Your task to perform on an android device: Search for vegetarian restaurants on Maps Image 0: 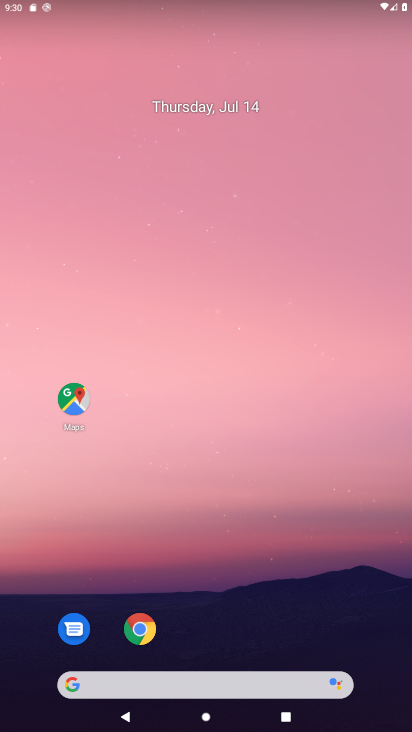
Step 0: press home button
Your task to perform on an android device: Search for vegetarian restaurants on Maps Image 1: 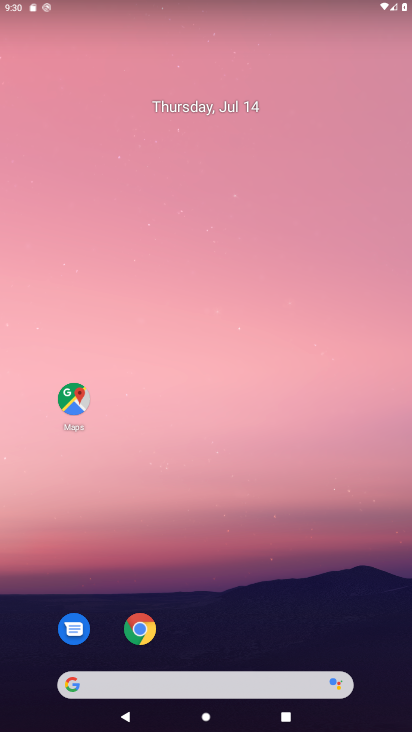
Step 1: drag from (251, 571) to (318, 95)
Your task to perform on an android device: Search for vegetarian restaurants on Maps Image 2: 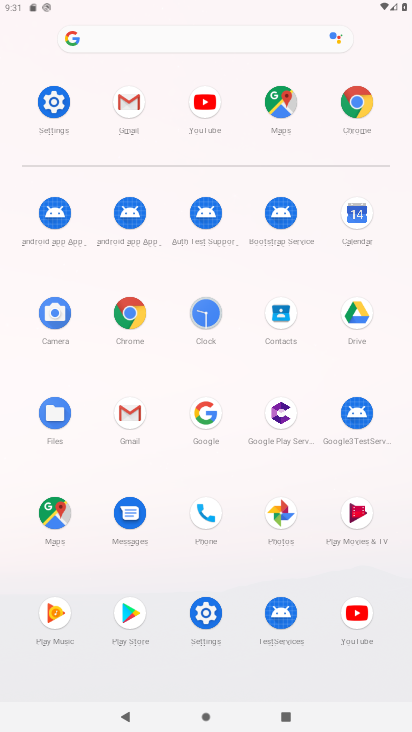
Step 2: click (53, 509)
Your task to perform on an android device: Search for vegetarian restaurants on Maps Image 3: 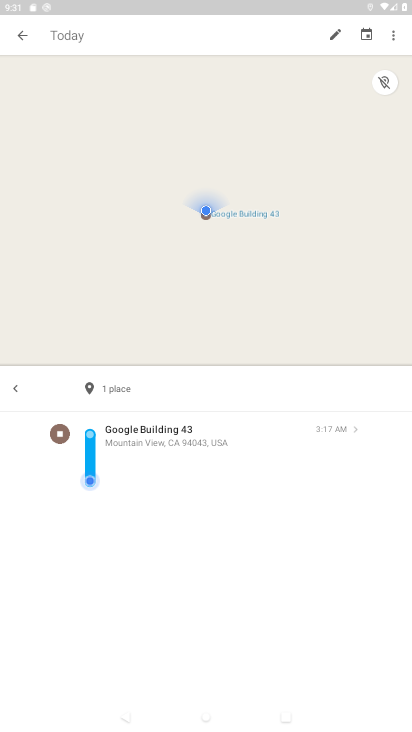
Step 3: click (13, 31)
Your task to perform on an android device: Search for vegetarian restaurants on Maps Image 4: 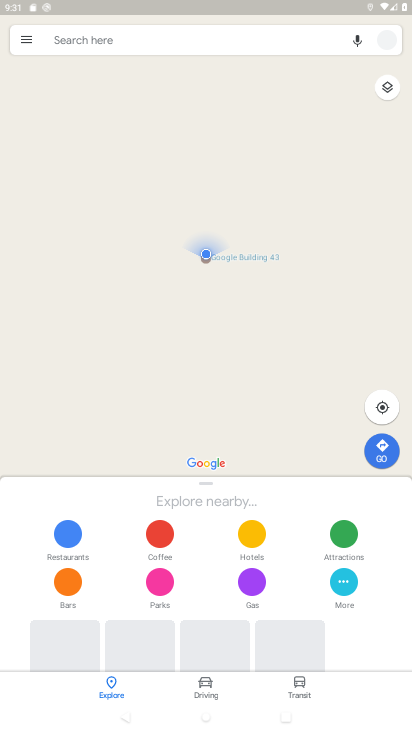
Step 4: click (103, 33)
Your task to perform on an android device: Search for vegetarian restaurants on Maps Image 5: 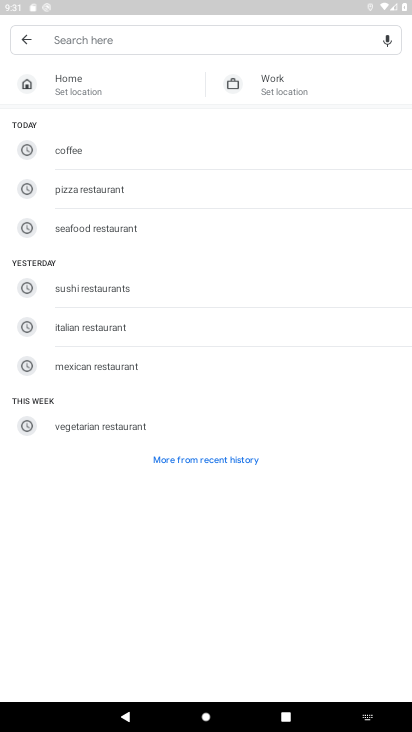
Step 5: type "vegetarian  restaurants "
Your task to perform on an android device: Search for vegetarian restaurants on Maps Image 6: 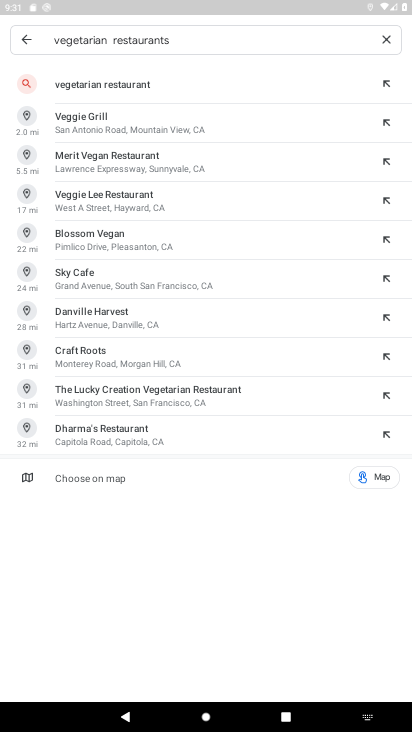
Step 6: click (67, 87)
Your task to perform on an android device: Search for vegetarian restaurants on Maps Image 7: 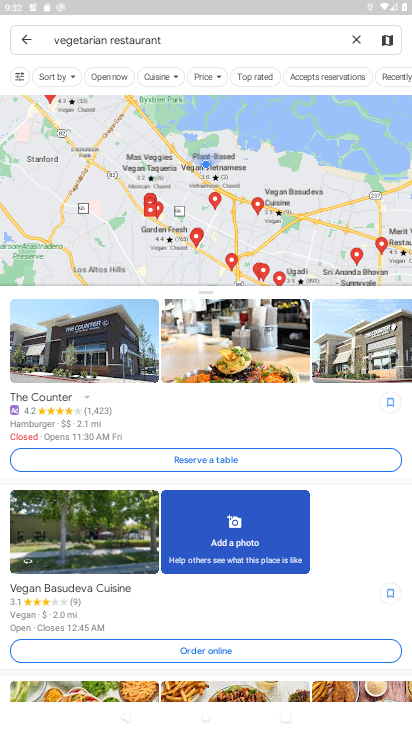
Step 7: task complete